Your task to perform on an android device: Open Google Chrome and open the bookmarks view Image 0: 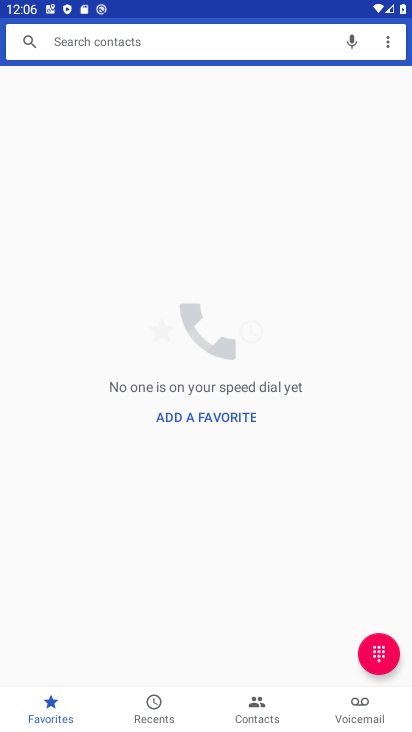
Step 0: press home button
Your task to perform on an android device: Open Google Chrome and open the bookmarks view Image 1: 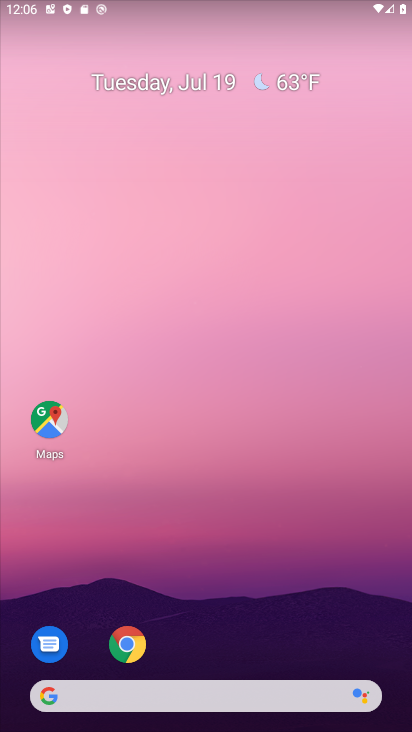
Step 1: click (128, 645)
Your task to perform on an android device: Open Google Chrome and open the bookmarks view Image 2: 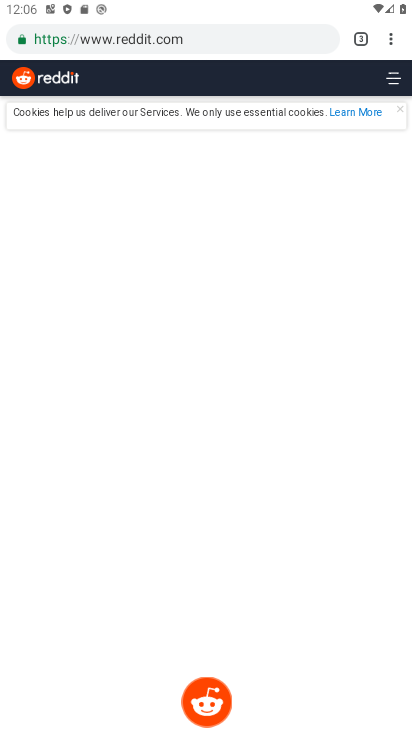
Step 2: click (392, 44)
Your task to perform on an android device: Open Google Chrome and open the bookmarks view Image 3: 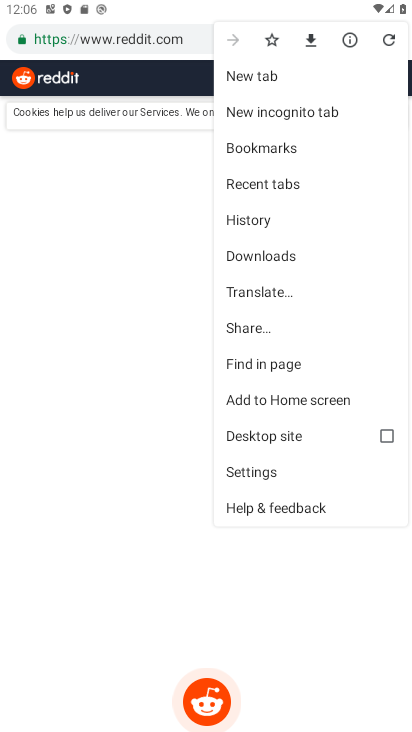
Step 3: click (265, 145)
Your task to perform on an android device: Open Google Chrome and open the bookmarks view Image 4: 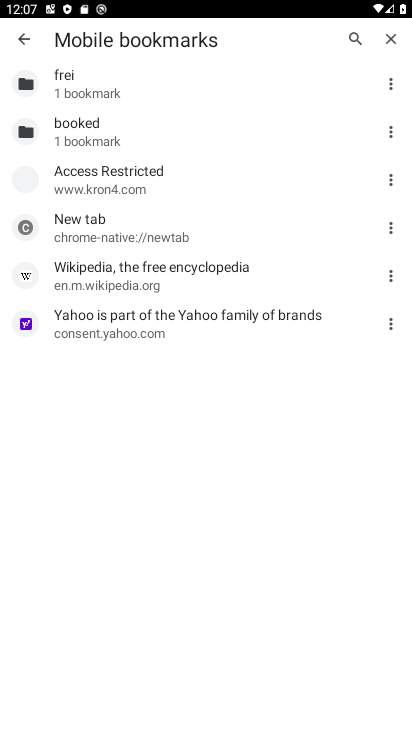
Step 4: task complete